Your task to perform on an android device: set the stopwatch Image 0: 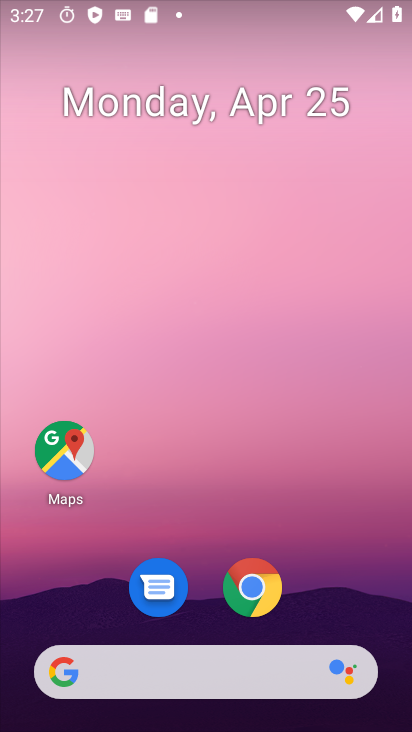
Step 0: drag from (364, 569) to (305, 113)
Your task to perform on an android device: set the stopwatch Image 1: 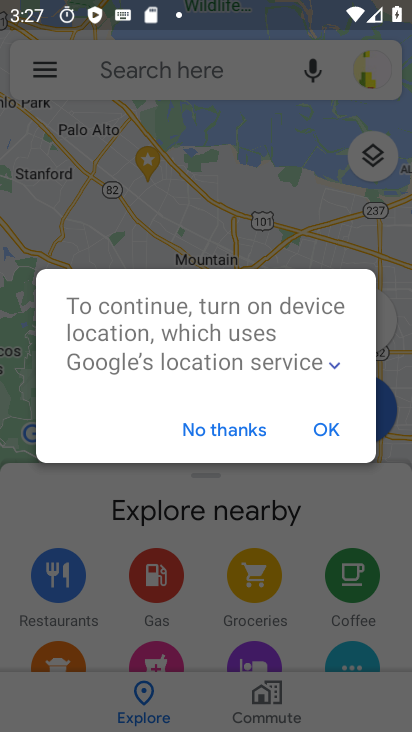
Step 1: press home button
Your task to perform on an android device: set the stopwatch Image 2: 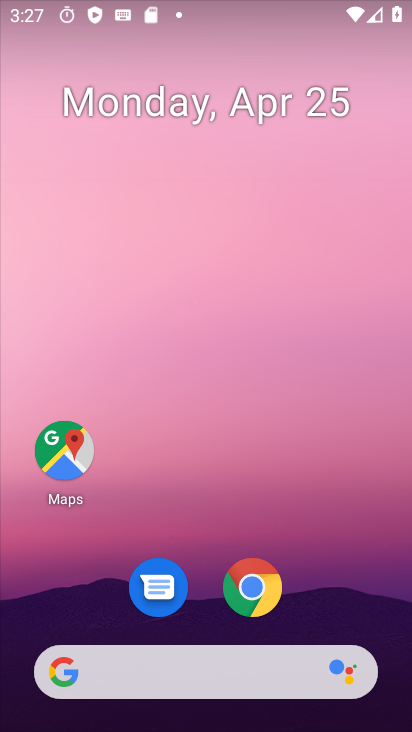
Step 2: drag from (341, 572) to (280, 122)
Your task to perform on an android device: set the stopwatch Image 3: 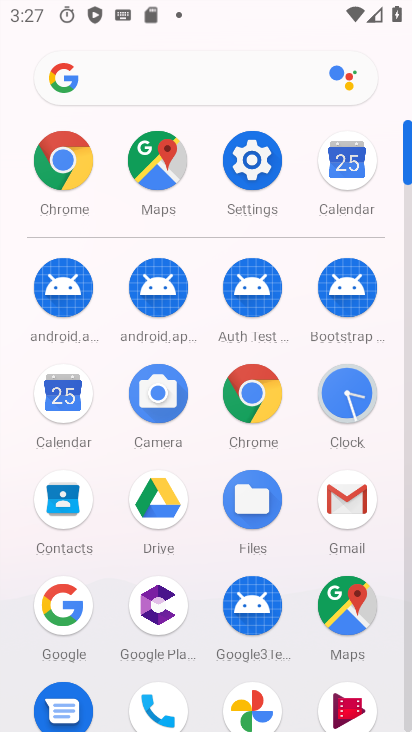
Step 3: click (342, 401)
Your task to perform on an android device: set the stopwatch Image 4: 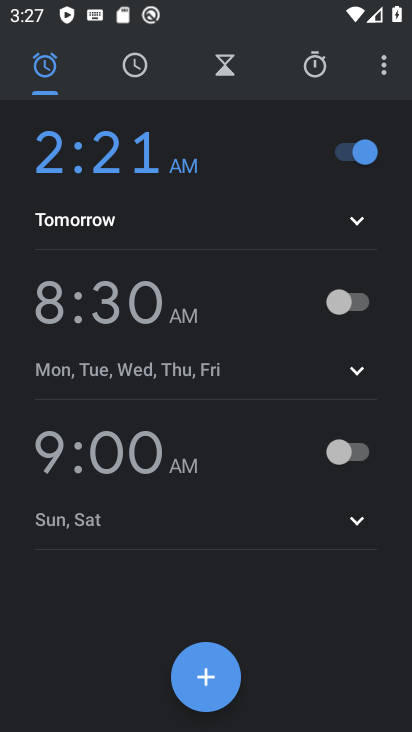
Step 4: click (319, 70)
Your task to perform on an android device: set the stopwatch Image 5: 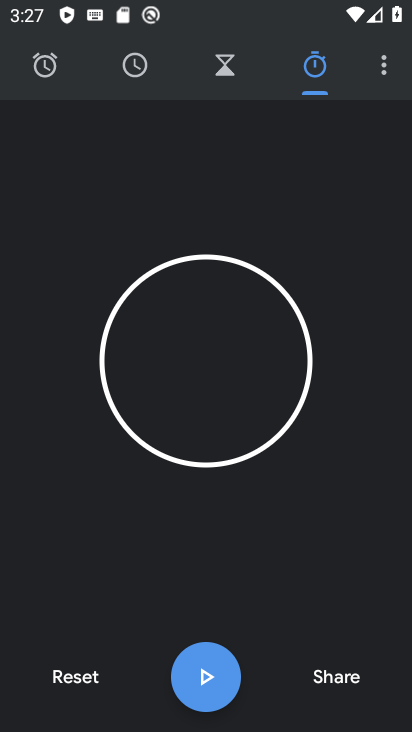
Step 5: task complete